Your task to perform on an android device: Go to calendar. Show me events next week Image 0: 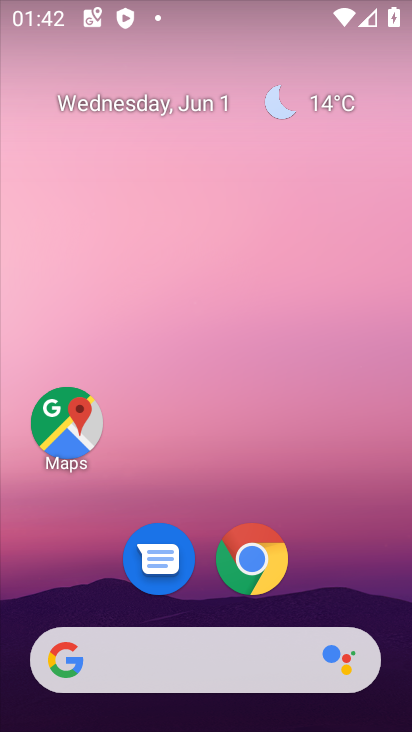
Step 0: drag from (399, 687) to (350, 246)
Your task to perform on an android device: Go to calendar. Show me events next week Image 1: 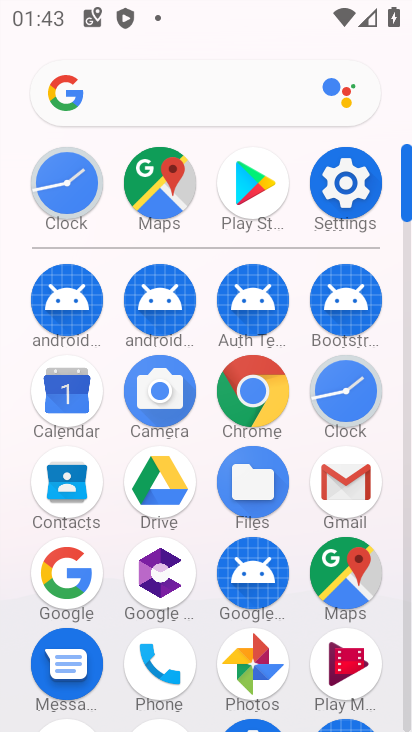
Step 1: click (77, 407)
Your task to perform on an android device: Go to calendar. Show me events next week Image 2: 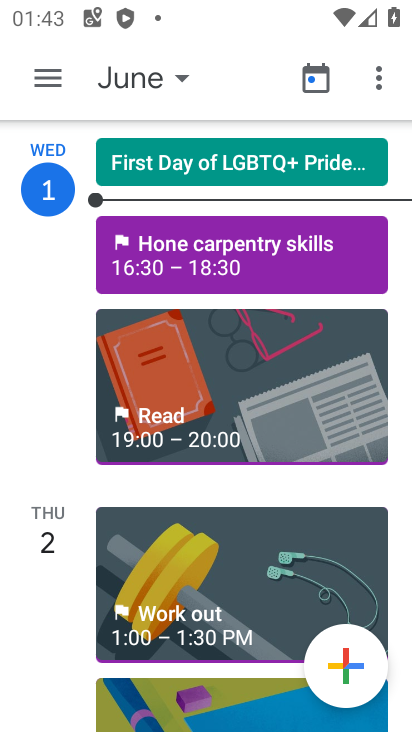
Step 2: click (176, 78)
Your task to perform on an android device: Go to calendar. Show me events next week Image 3: 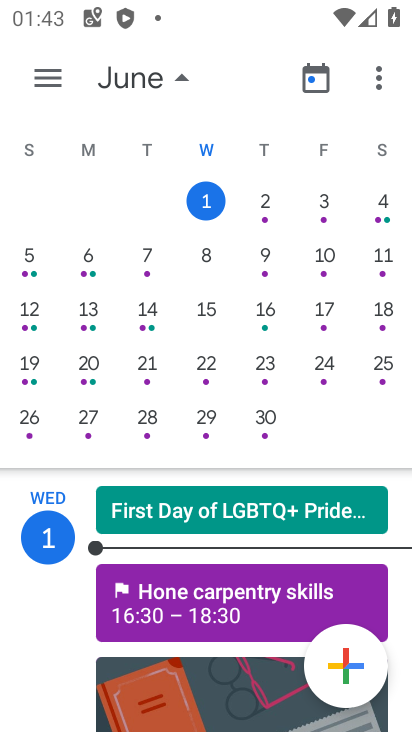
Step 3: click (206, 257)
Your task to perform on an android device: Go to calendar. Show me events next week Image 4: 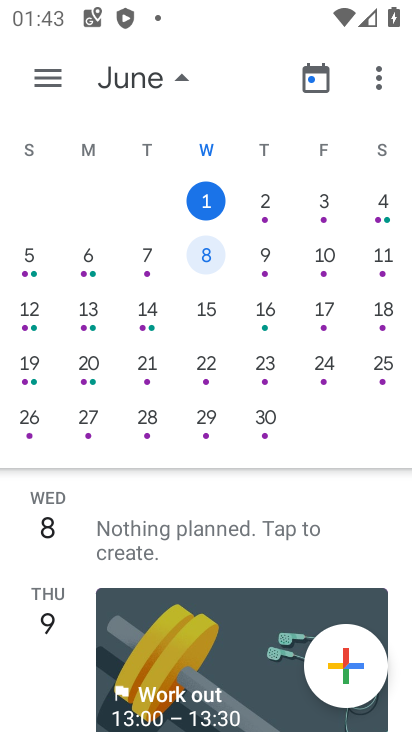
Step 4: click (60, 79)
Your task to perform on an android device: Go to calendar. Show me events next week Image 5: 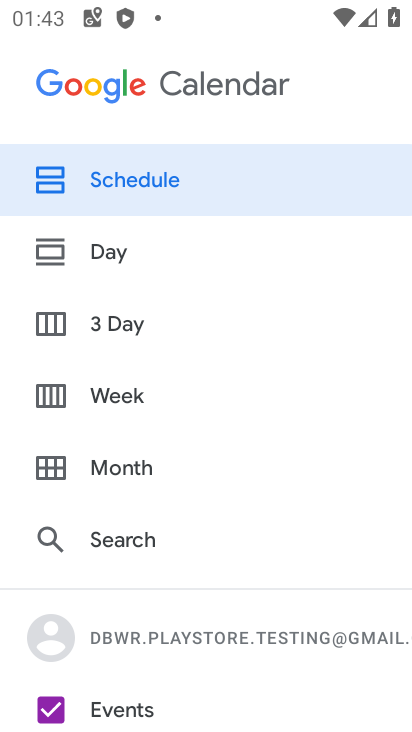
Step 5: click (87, 184)
Your task to perform on an android device: Go to calendar. Show me events next week Image 6: 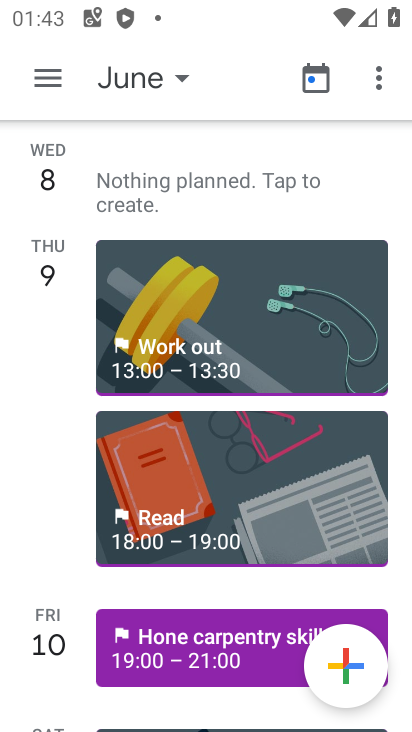
Step 6: task complete